Your task to perform on an android device: Go to Reddit.com Image 0: 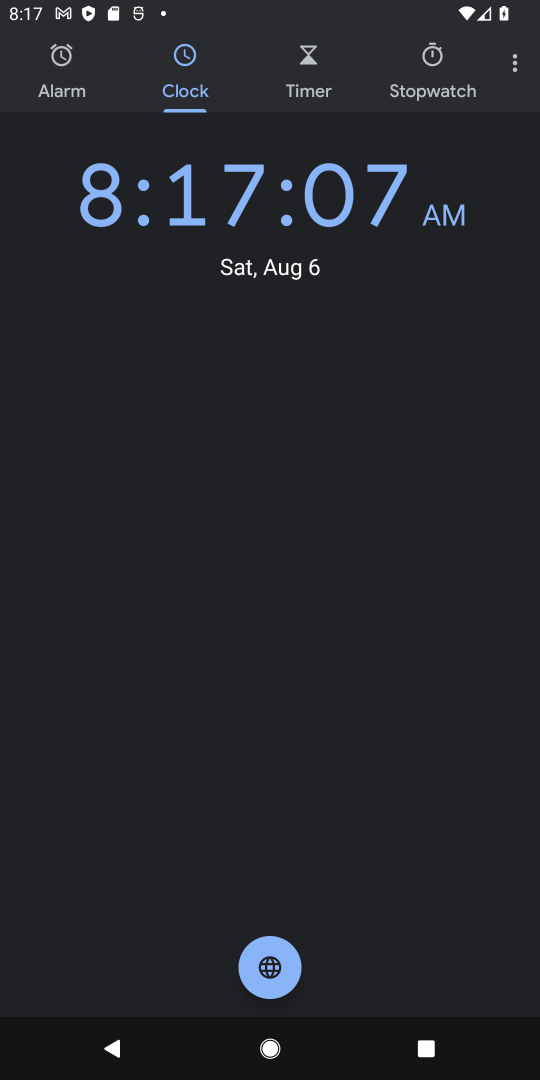
Step 0: press home button
Your task to perform on an android device: Go to Reddit.com Image 1: 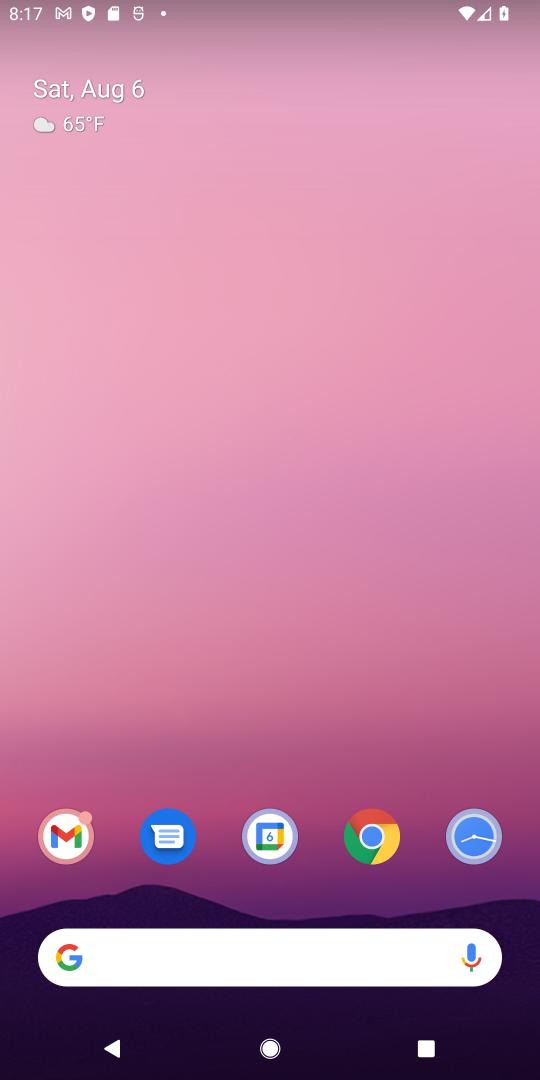
Step 1: drag from (437, 915) to (201, 131)
Your task to perform on an android device: Go to Reddit.com Image 2: 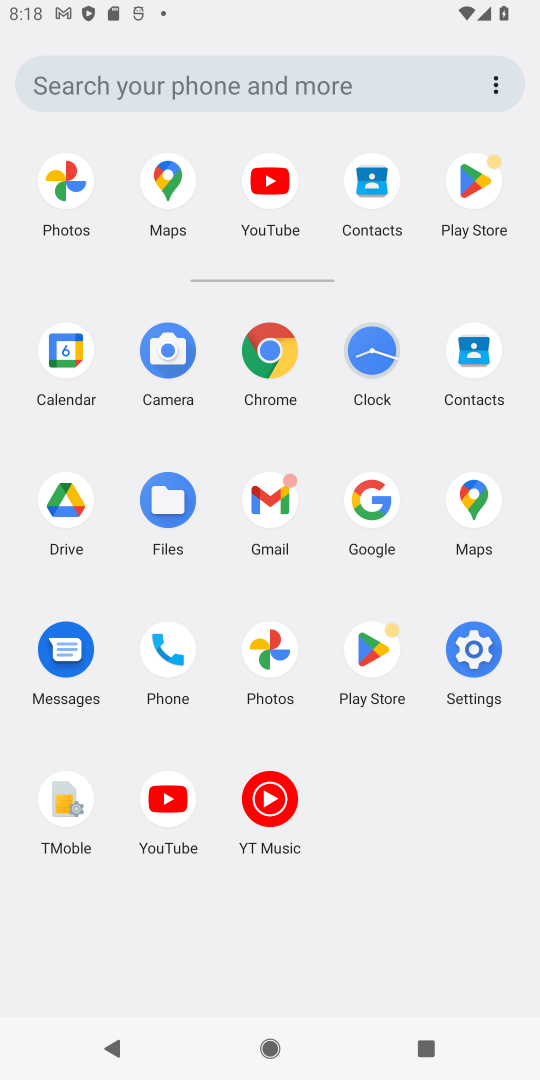
Step 2: click (386, 496)
Your task to perform on an android device: Go to Reddit.com Image 3: 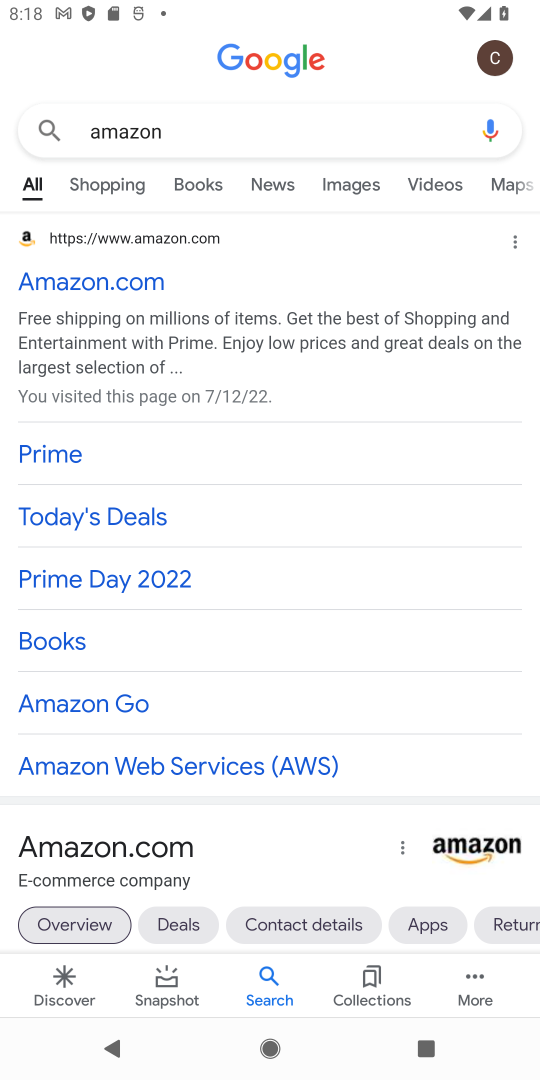
Step 3: press back button
Your task to perform on an android device: Go to Reddit.com Image 4: 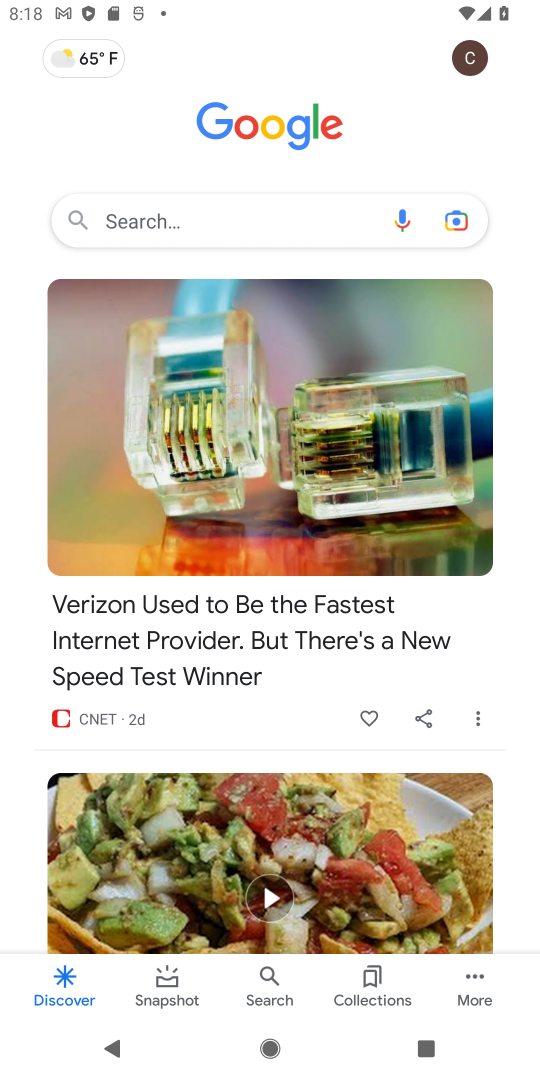
Step 4: click (119, 214)
Your task to perform on an android device: Go to Reddit.com Image 5: 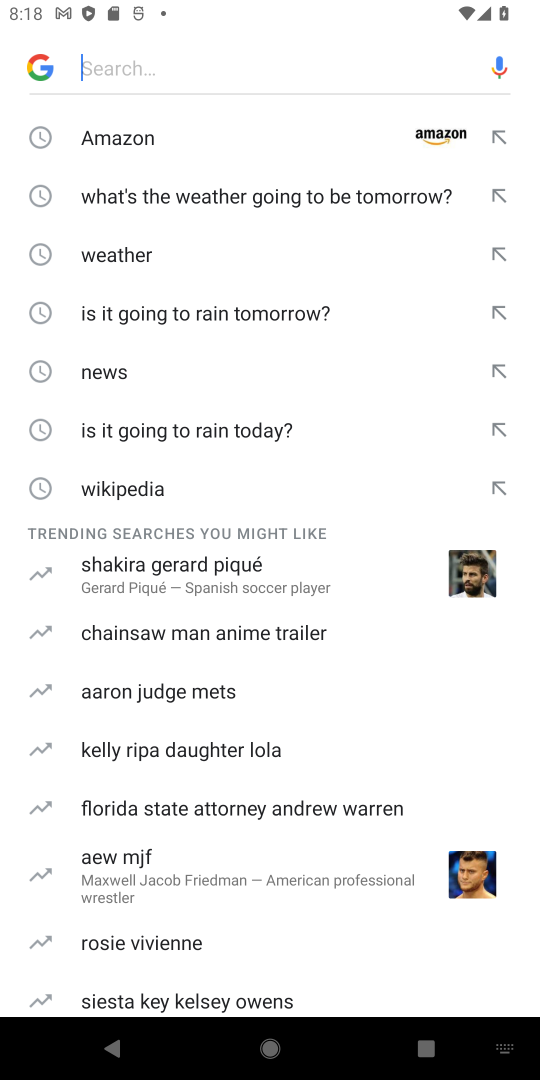
Step 5: type "Reddit.com"
Your task to perform on an android device: Go to Reddit.com Image 6: 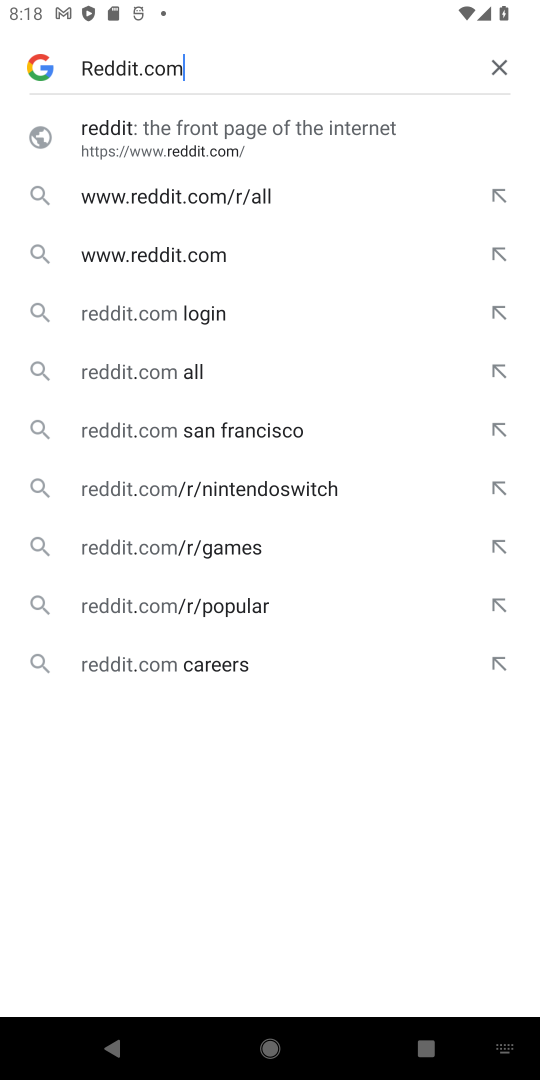
Step 6: click (184, 147)
Your task to perform on an android device: Go to Reddit.com Image 7: 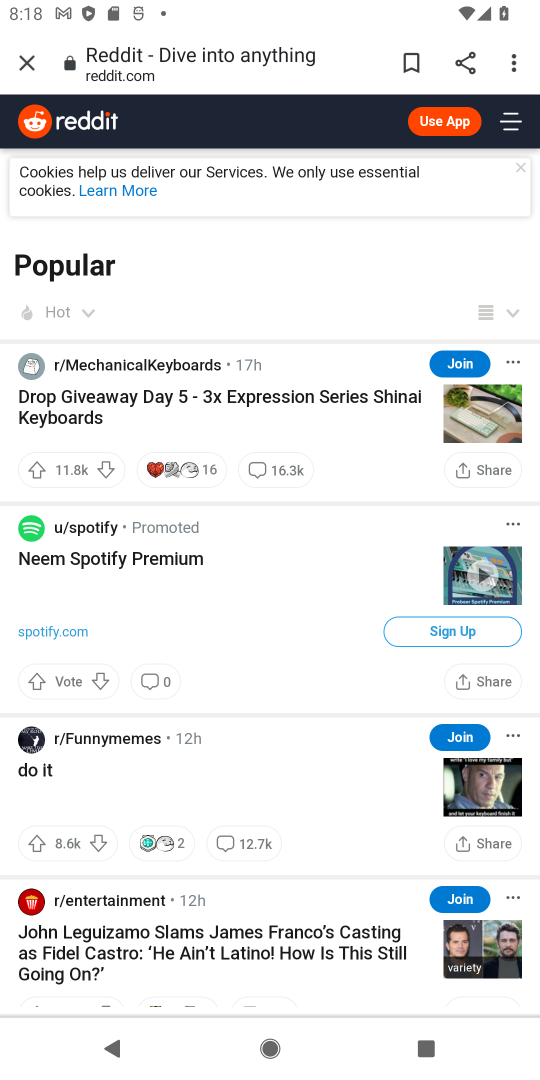
Step 7: task complete